Your task to perform on an android device: Clear the shopping cart on ebay. Search for amazon basics triple a on ebay, select the first entry, add it to the cart, then select checkout. Image 0: 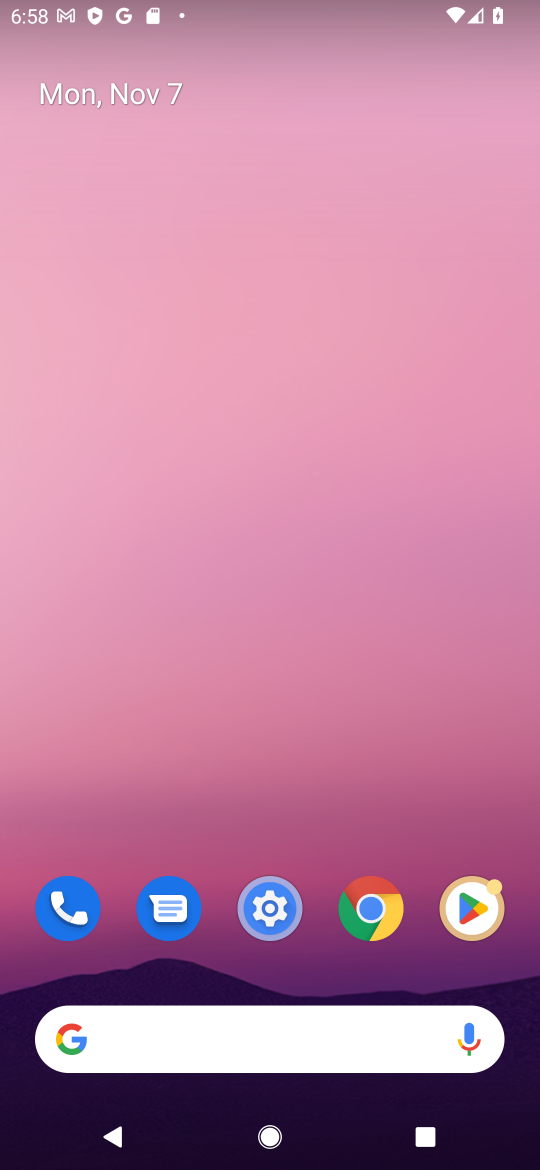
Step 0: click (301, 1038)
Your task to perform on an android device: Clear the shopping cart on ebay. Search for amazon basics triple a on ebay, select the first entry, add it to the cart, then select checkout. Image 1: 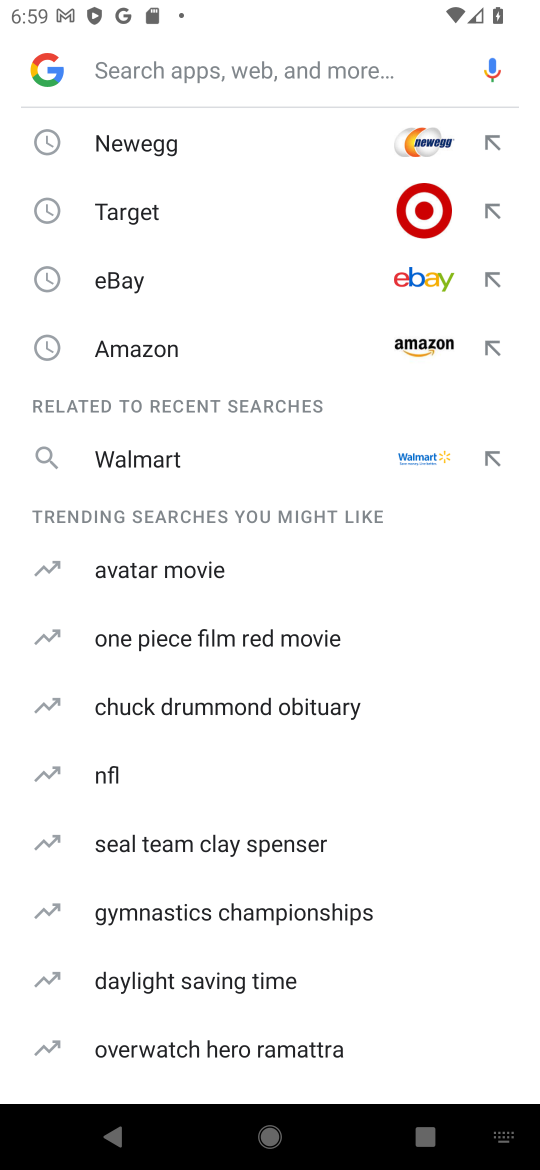
Step 1: click (341, 275)
Your task to perform on an android device: Clear the shopping cart on ebay. Search for amazon basics triple a on ebay, select the first entry, add it to the cart, then select checkout. Image 2: 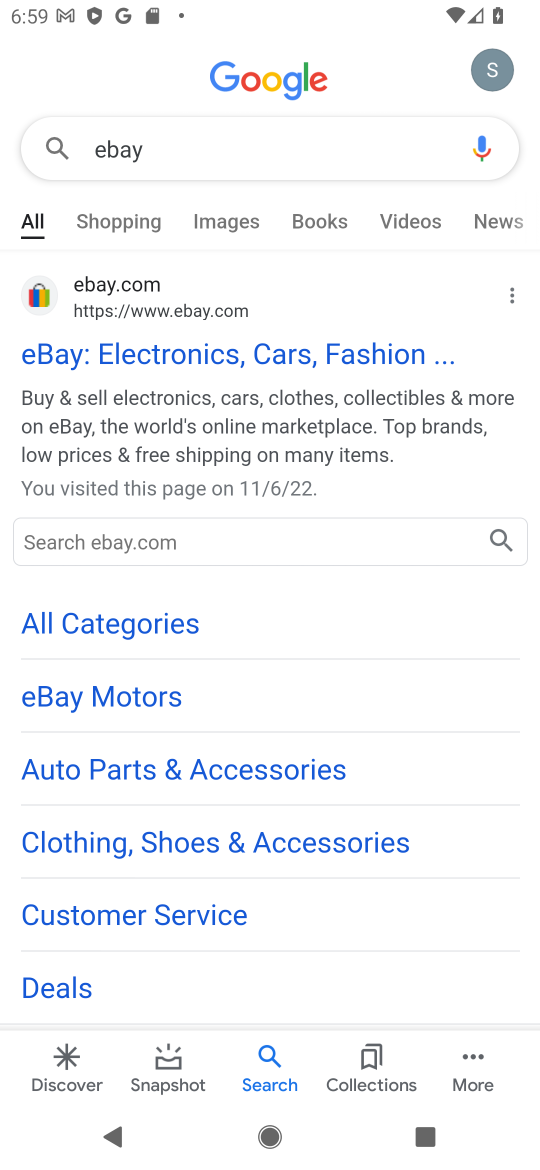
Step 2: click (350, 368)
Your task to perform on an android device: Clear the shopping cart on ebay. Search for amazon basics triple a on ebay, select the first entry, add it to the cart, then select checkout. Image 3: 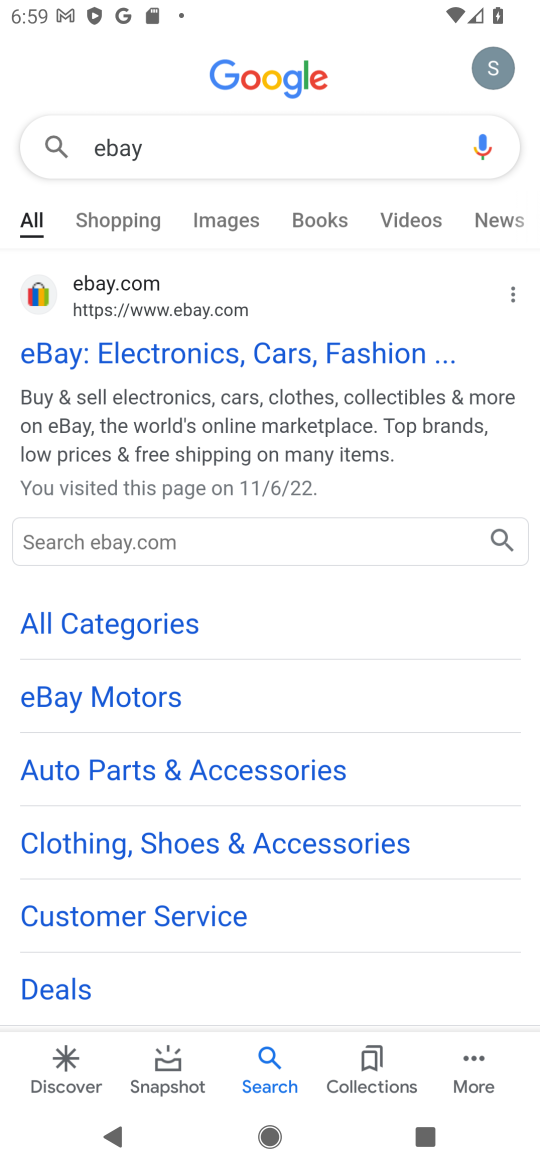
Step 3: task complete